Your task to perform on an android device: What's the weather? Image 0: 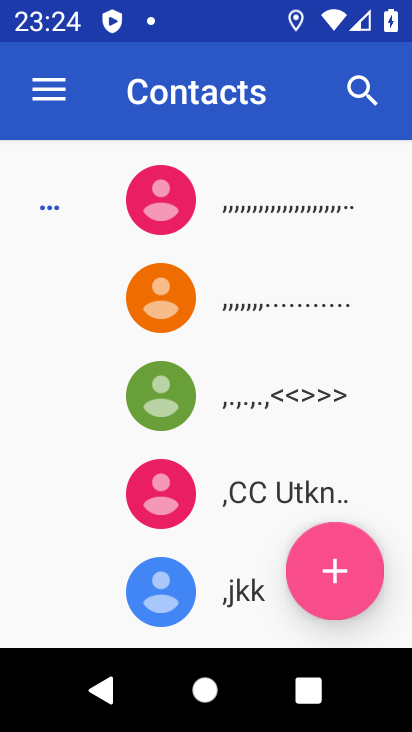
Step 0: press home button
Your task to perform on an android device: What's the weather? Image 1: 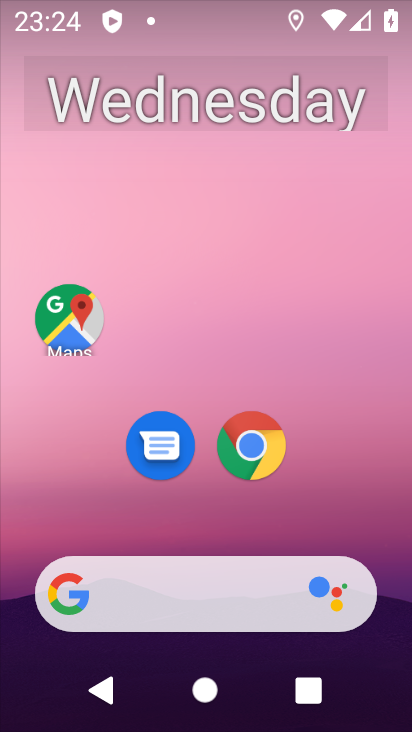
Step 1: click (221, 588)
Your task to perform on an android device: What's the weather? Image 2: 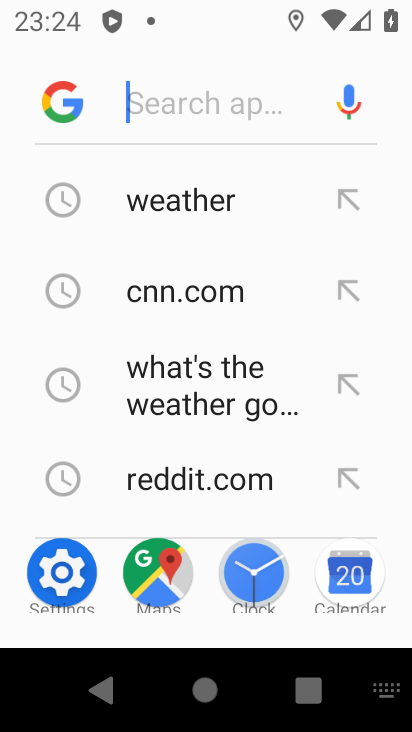
Step 2: click (204, 207)
Your task to perform on an android device: What's the weather? Image 3: 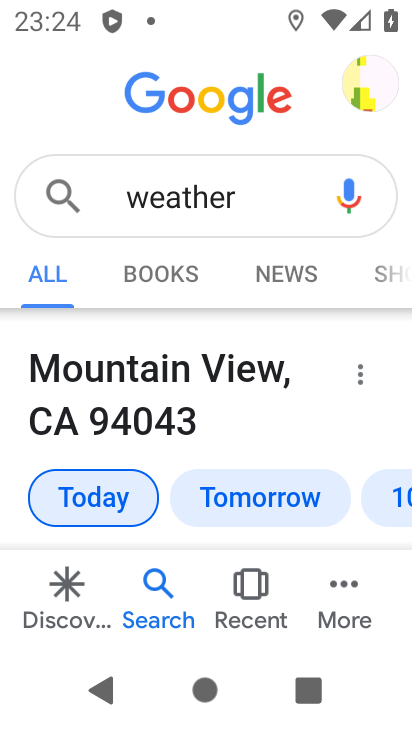
Step 3: task complete